Your task to perform on an android device: toggle translation in the chrome app Image 0: 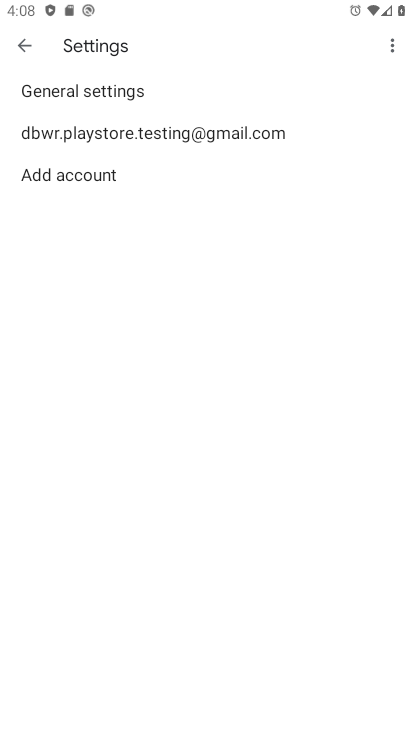
Step 0: click (16, 44)
Your task to perform on an android device: toggle translation in the chrome app Image 1: 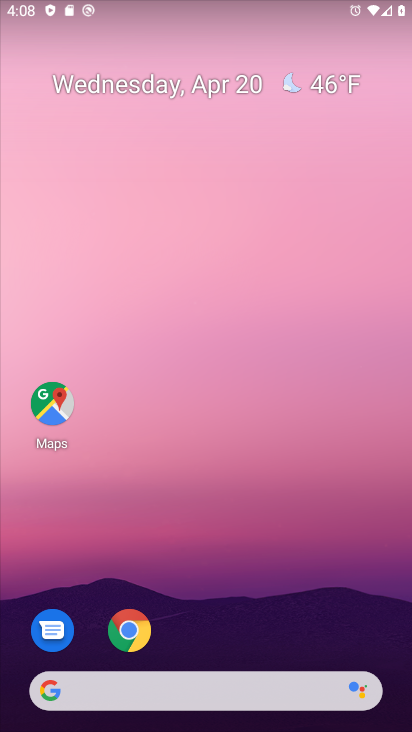
Step 1: click (257, 308)
Your task to perform on an android device: toggle translation in the chrome app Image 2: 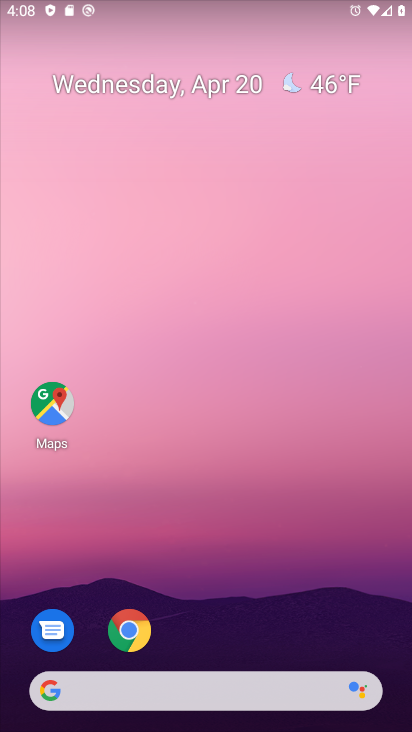
Step 2: drag from (195, 317) to (196, 192)
Your task to perform on an android device: toggle translation in the chrome app Image 3: 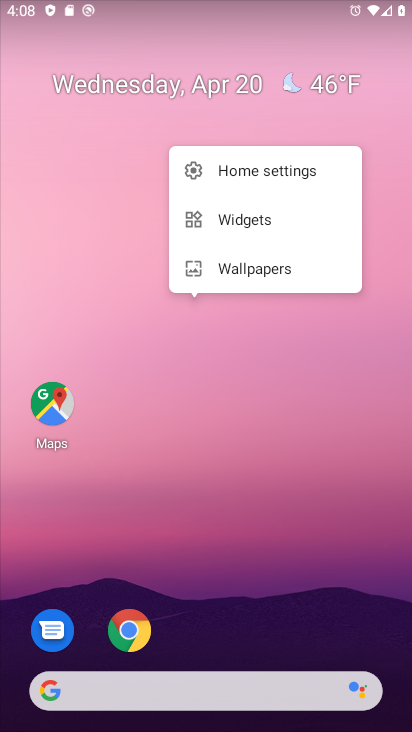
Step 3: drag from (193, 669) to (171, 190)
Your task to perform on an android device: toggle translation in the chrome app Image 4: 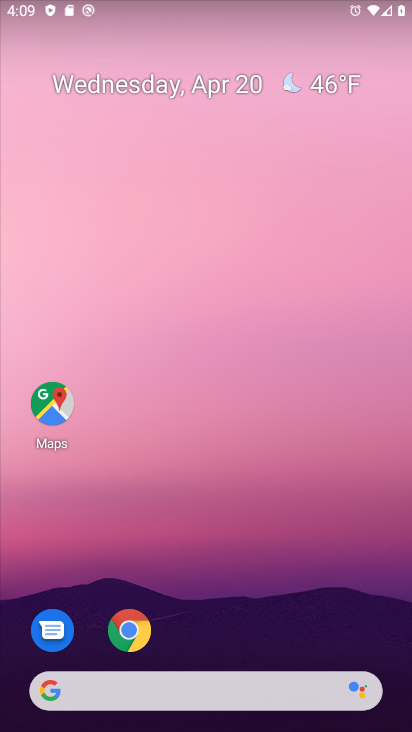
Step 4: drag from (244, 630) to (259, 174)
Your task to perform on an android device: toggle translation in the chrome app Image 5: 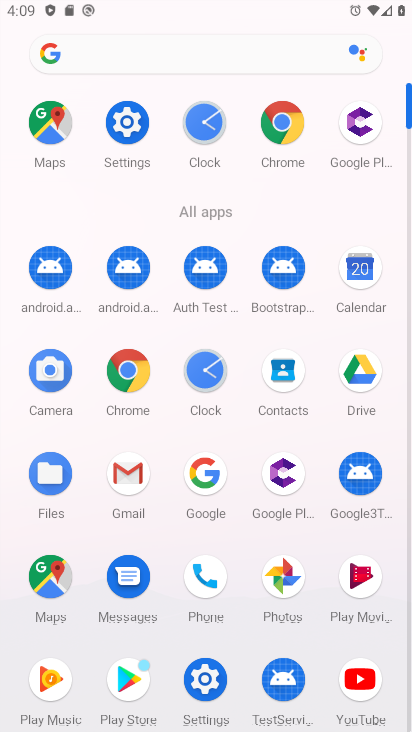
Step 5: click (278, 124)
Your task to perform on an android device: toggle translation in the chrome app Image 6: 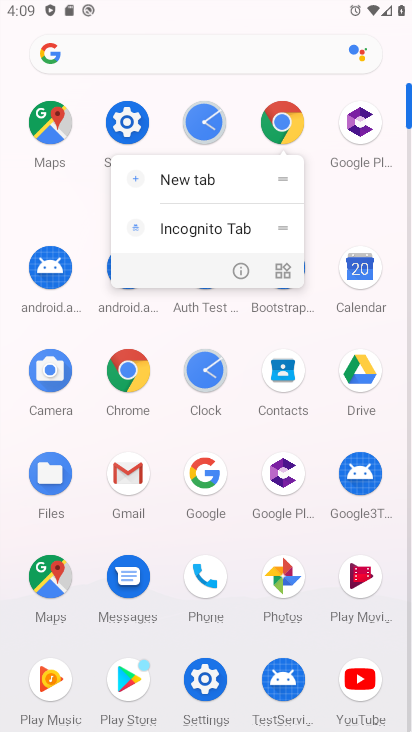
Step 6: click (278, 124)
Your task to perform on an android device: toggle translation in the chrome app Image 7: 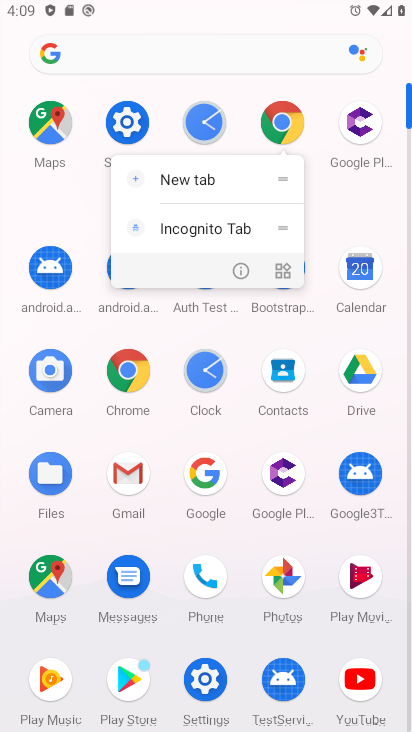
Step 7: click (278, 129)
Your task to perform on an android device: toggle translation in the chrome app Image 8: 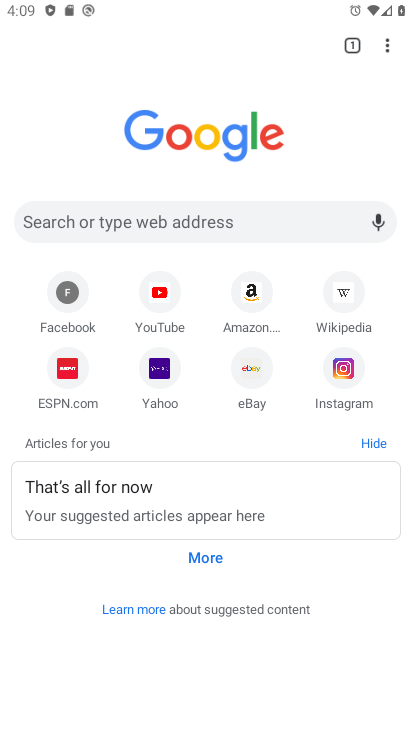
Step 8: click (388, 46)
Your task to perform on an android device: toggle translation in the chrome app Image 9: 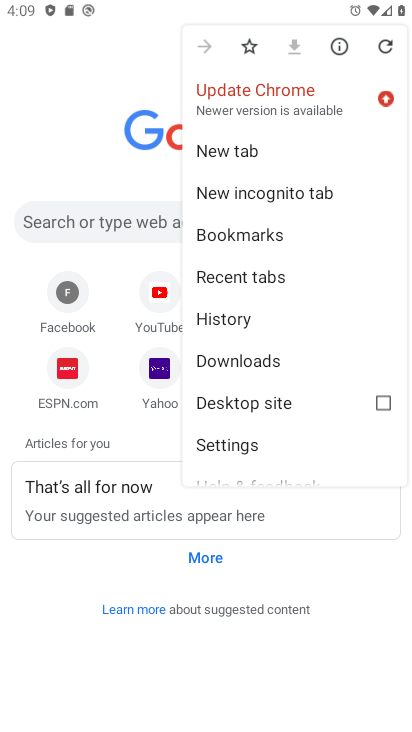
Step 9: click (239, 445)
Your task to perform on an android device: toggle translation in the chrome app Image 10: 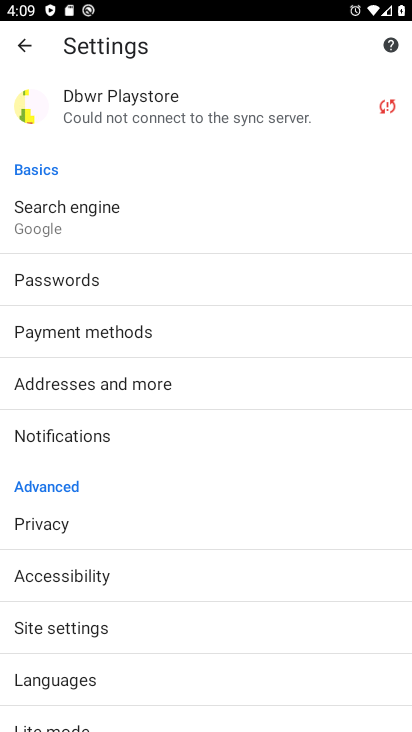
Step 10: click (75, 683)
Your task to perform on an android device: toggle translation in the chrome app Image 11: 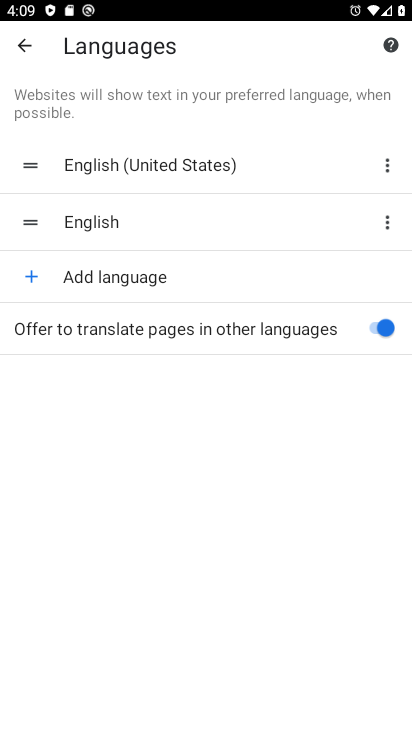
Step 11: click (371, 325)
Your task to perform on an android device: toggle translation in the chrome app Image 12: 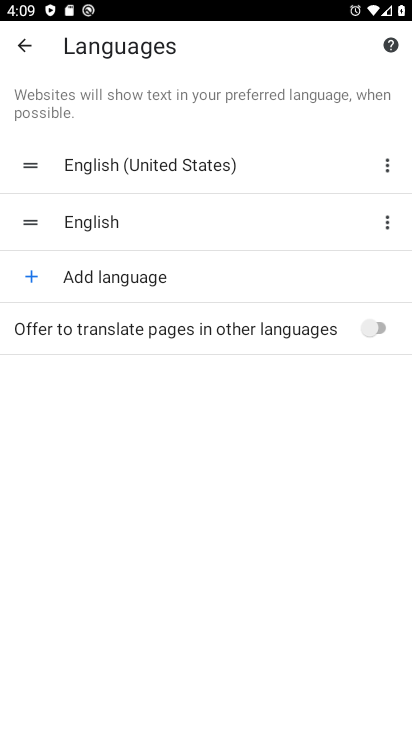
Step 12: task complete